Your task to perform on an android device: open chrome privacy settings Image 0: 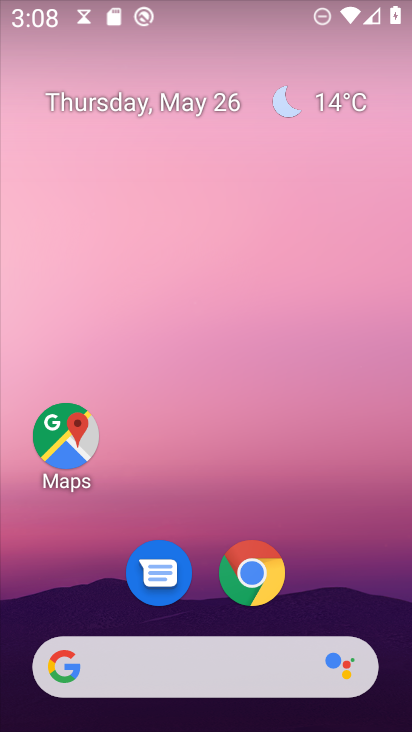
Step 0: drag from (308, 542) to (236, 39)
Your task to perform on an android device: open chrome privacy settings Image 1: 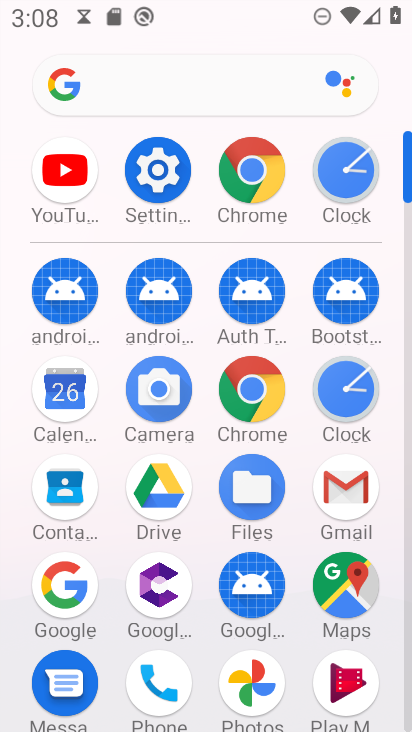
Step 1: drag from (5, 527) to (14, 254)
Your task to perform on an android device: open chrome privacy settings Image 2: 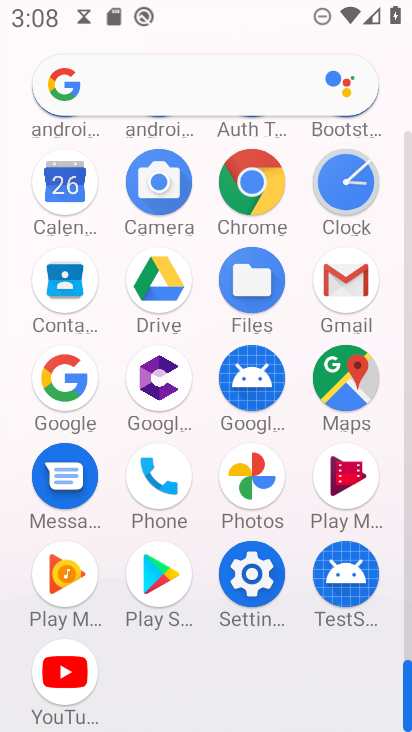
Step 2: click (252, 174)
Your task to perform on an android device: open chrome privacy settings Image 3: 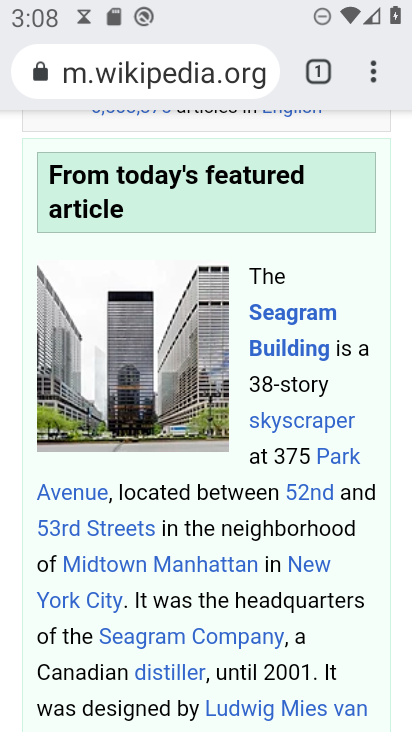
Step 3: task complete